Your task to perform on an android device: open chrome and create a bookmark for the current page Image 0: 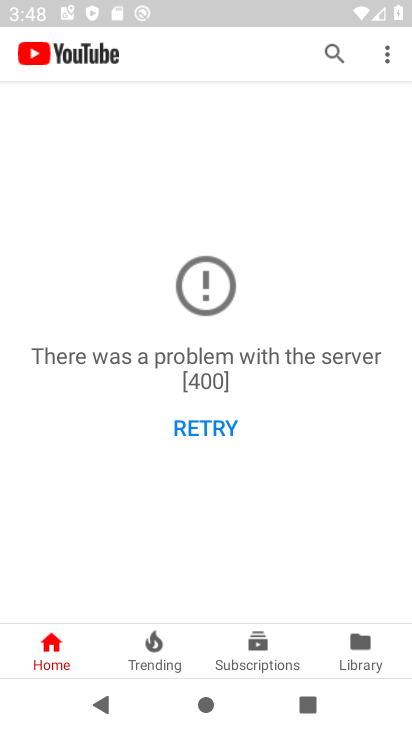
Step 0: press home button
Your task to perform on an android device: open chrome and create a bookmark for the current page Image 1: 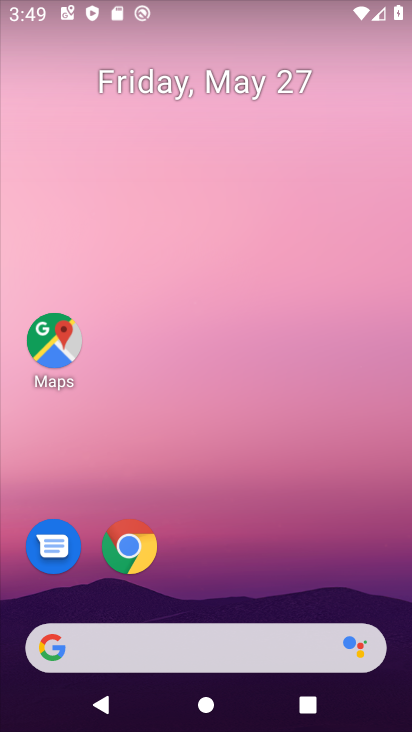
Step 1: click (126, 538)
Your task to perform on an android device: open chrome and create a bookmark for the current page Image 2: 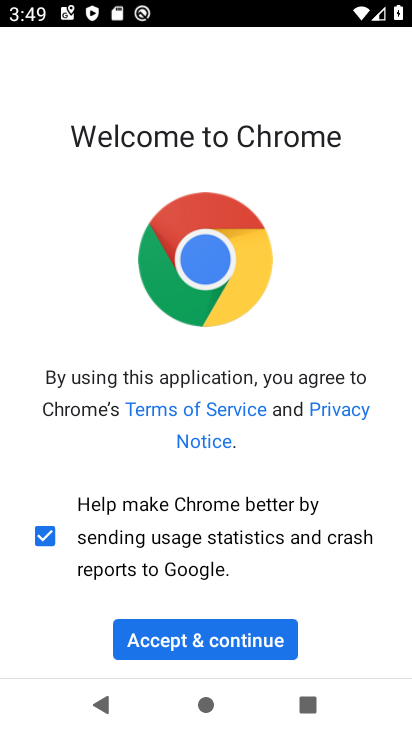
Step 2: click (193, 634)
Your task to perform on an android device: open chrome and create a bookmark for the current page Image 3: 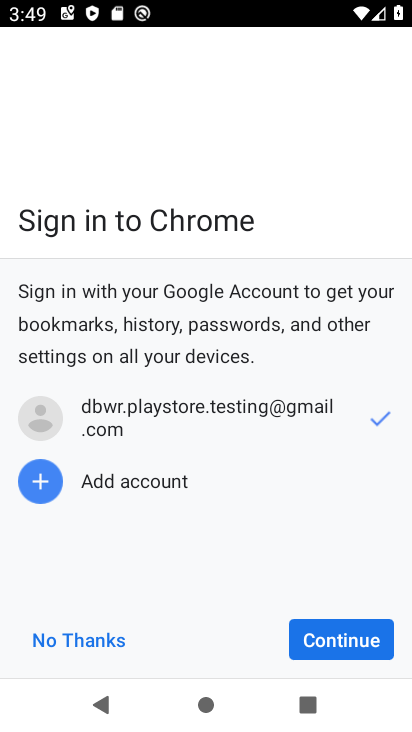
Step 3: click (375, 640)
Your task to perform on an android device: open chrome and create a bookmark for the current page Image 4: 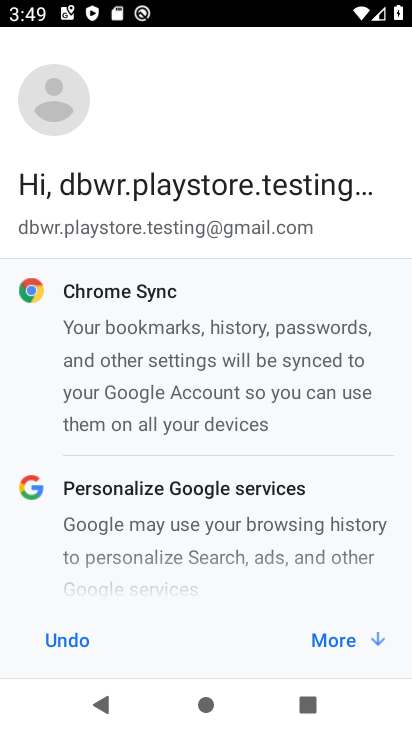
Step 4: click (359, 640)
Your task to perform on an android device: open chrome and create a bookmark for the current page Image 5: 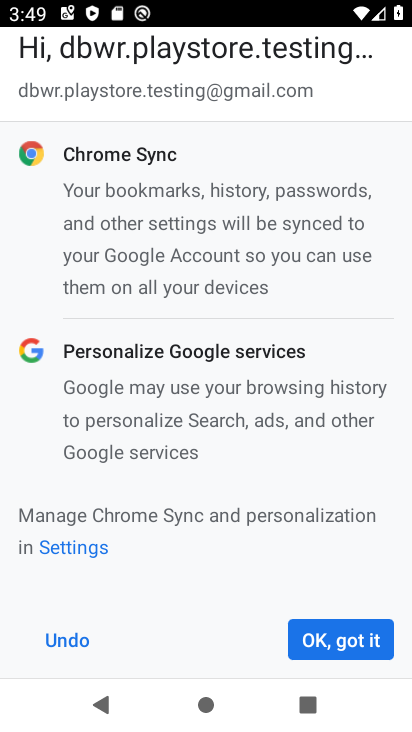
Step 5: click (354, 626)
Your task to perform on an android device: open chrome and create a bookmark for the current page Image 6: 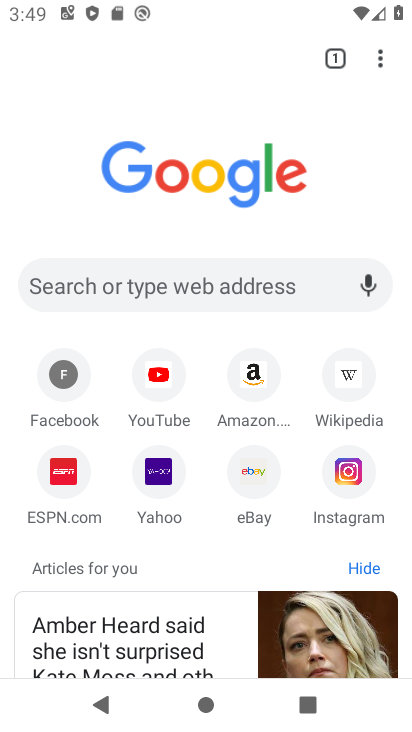
Step 6: click (378, 47)
Your task to perform on an android device: open chrome and create a bookmark for the current page Image 7: 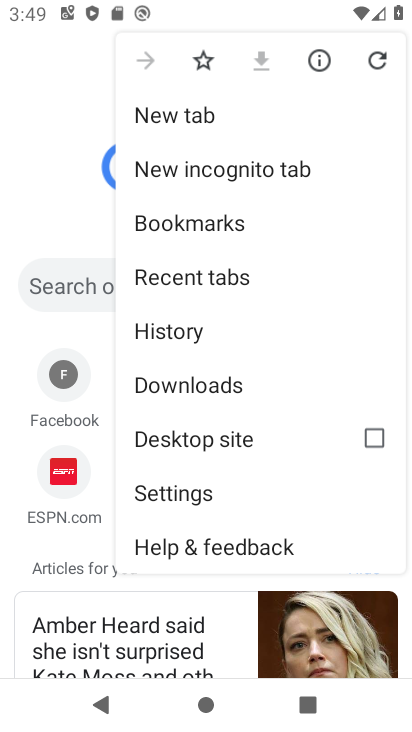
Step 7: click (204, 60)
Your task to perform on an android device: open chrome and create a bookmark for the current page Image 8: 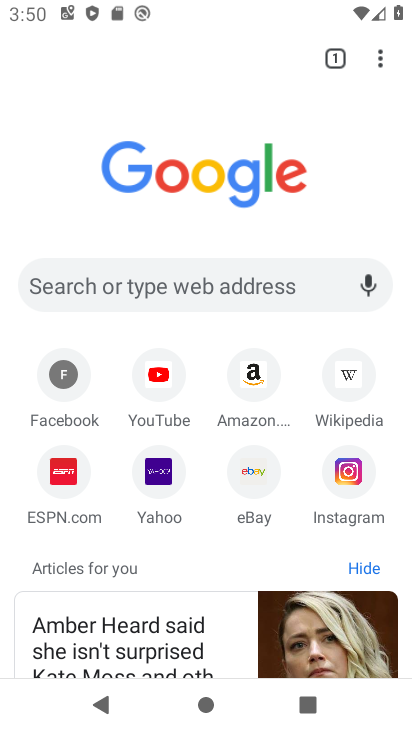
Step 8: task complete